Your task to perform on an android device: toggle data saver in the chrome app Image 0: 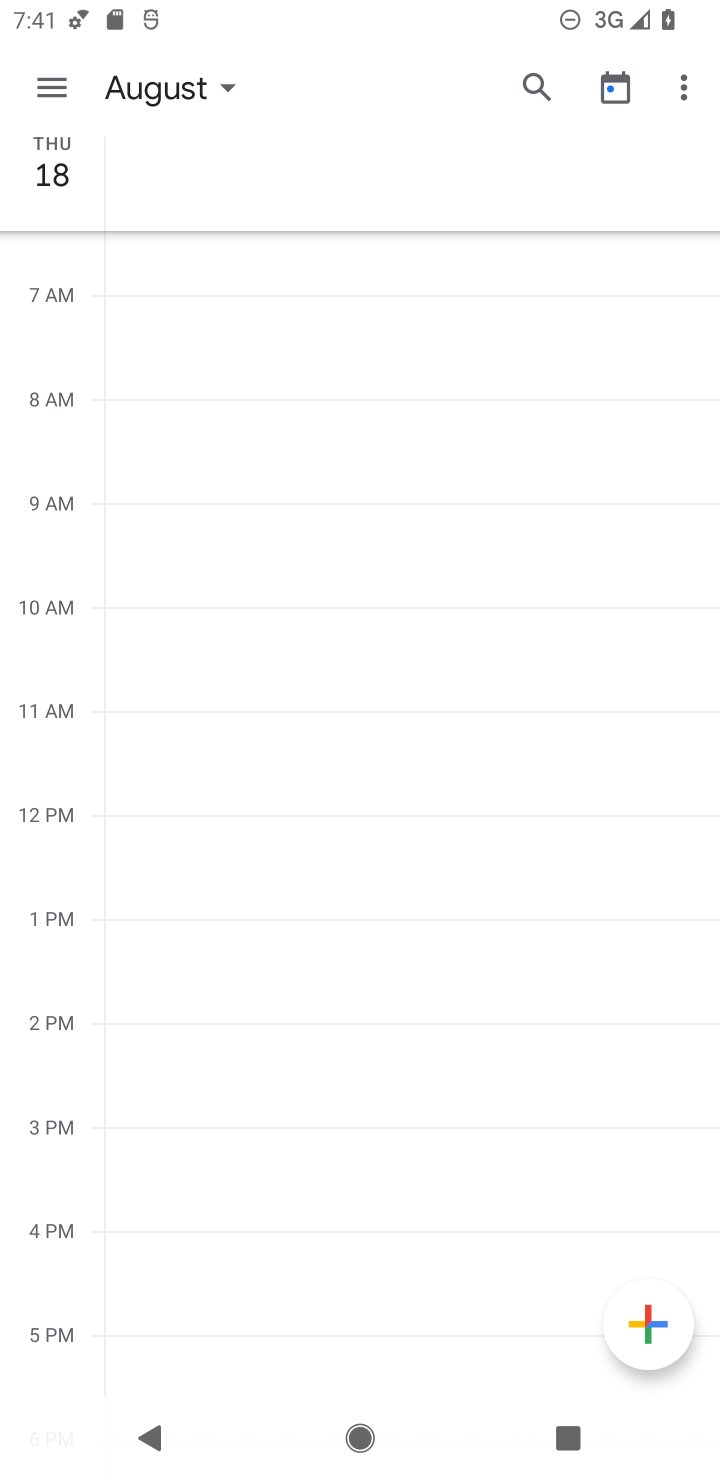
Step 0: press home button
Your task to perform on an android device: toggle data saver in the chrome app Image 1: 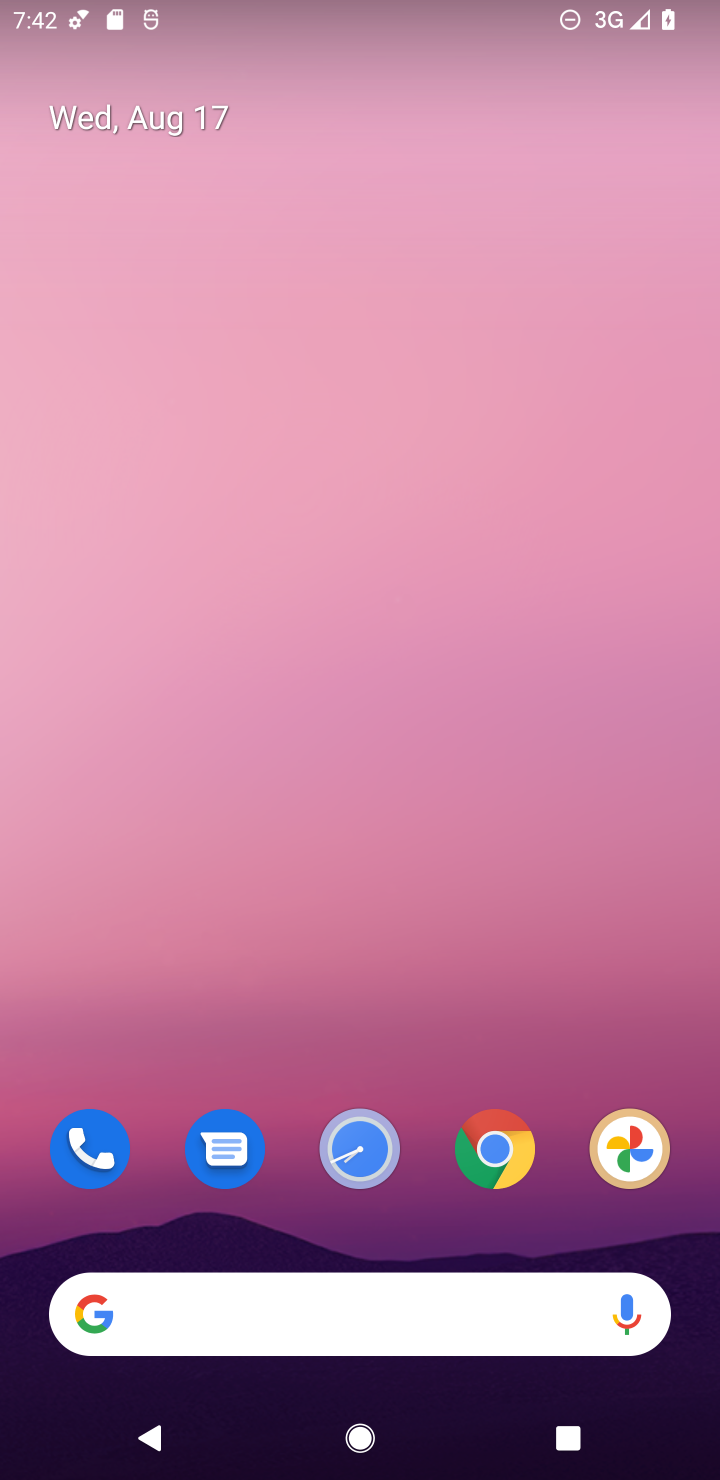
Step 1: click (497, 1137)
Your task to perform on an android device: toggle data saver in the chrome app Image 2: 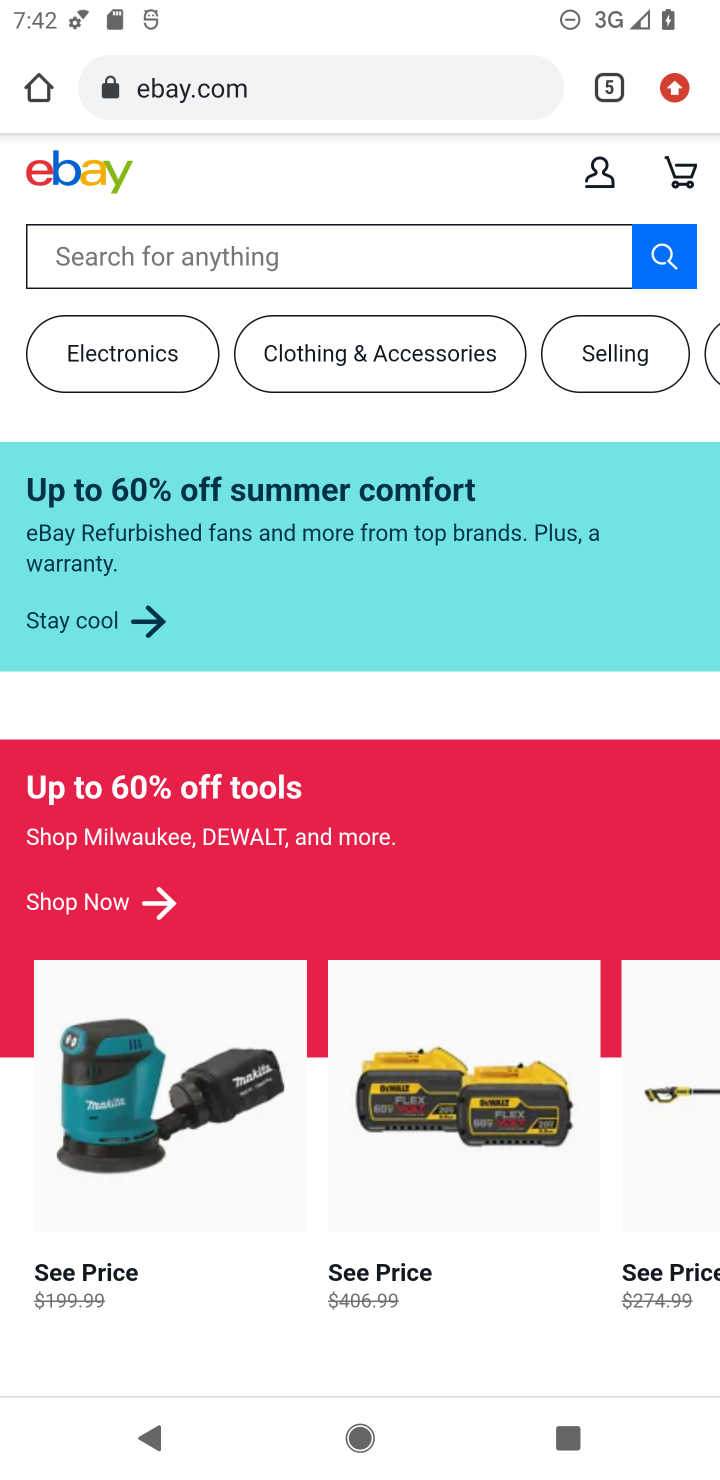
Step 2: click (662, 81)
Your task to perform on an android device: toggle data saver in the chrome app Image 3: 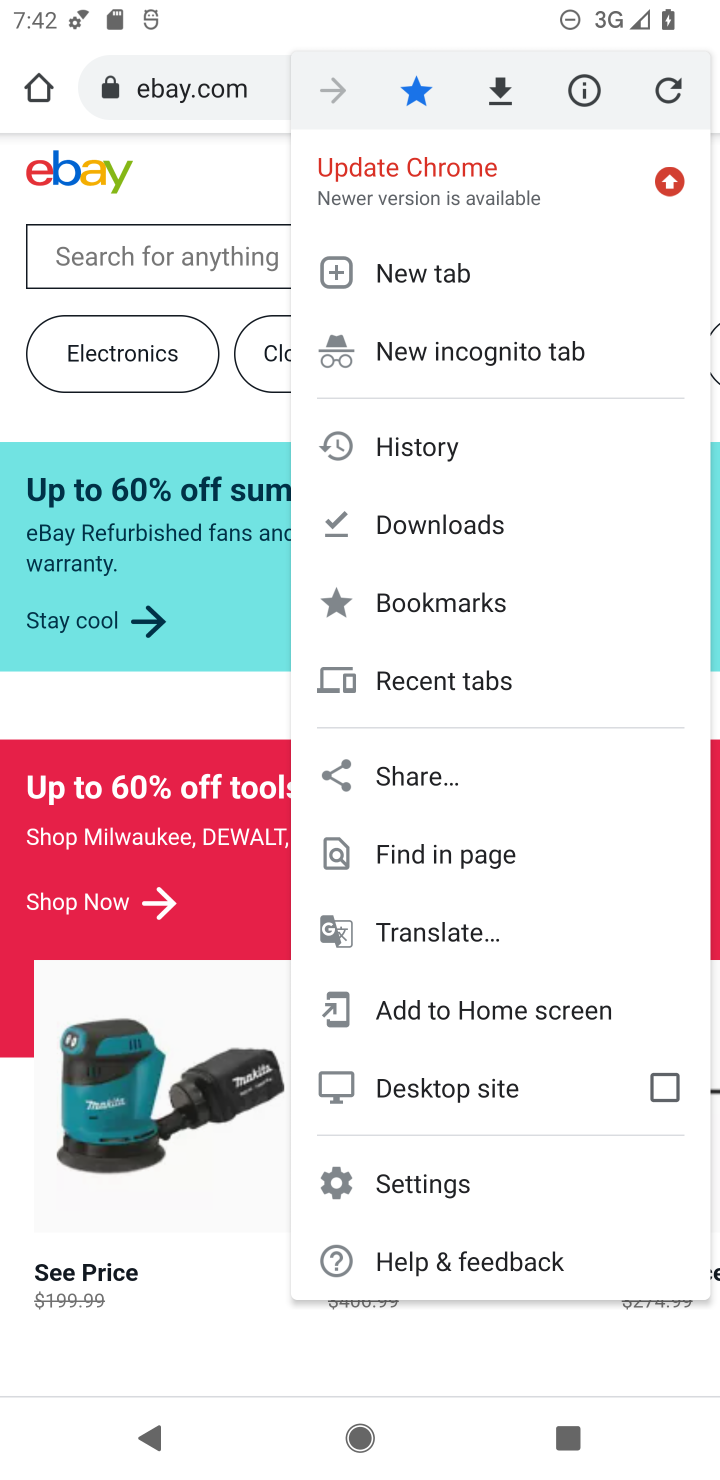
Step 3: click (423, 1170)
Your task to perform on an android device: toggle data saver in the chrome app Image 4: 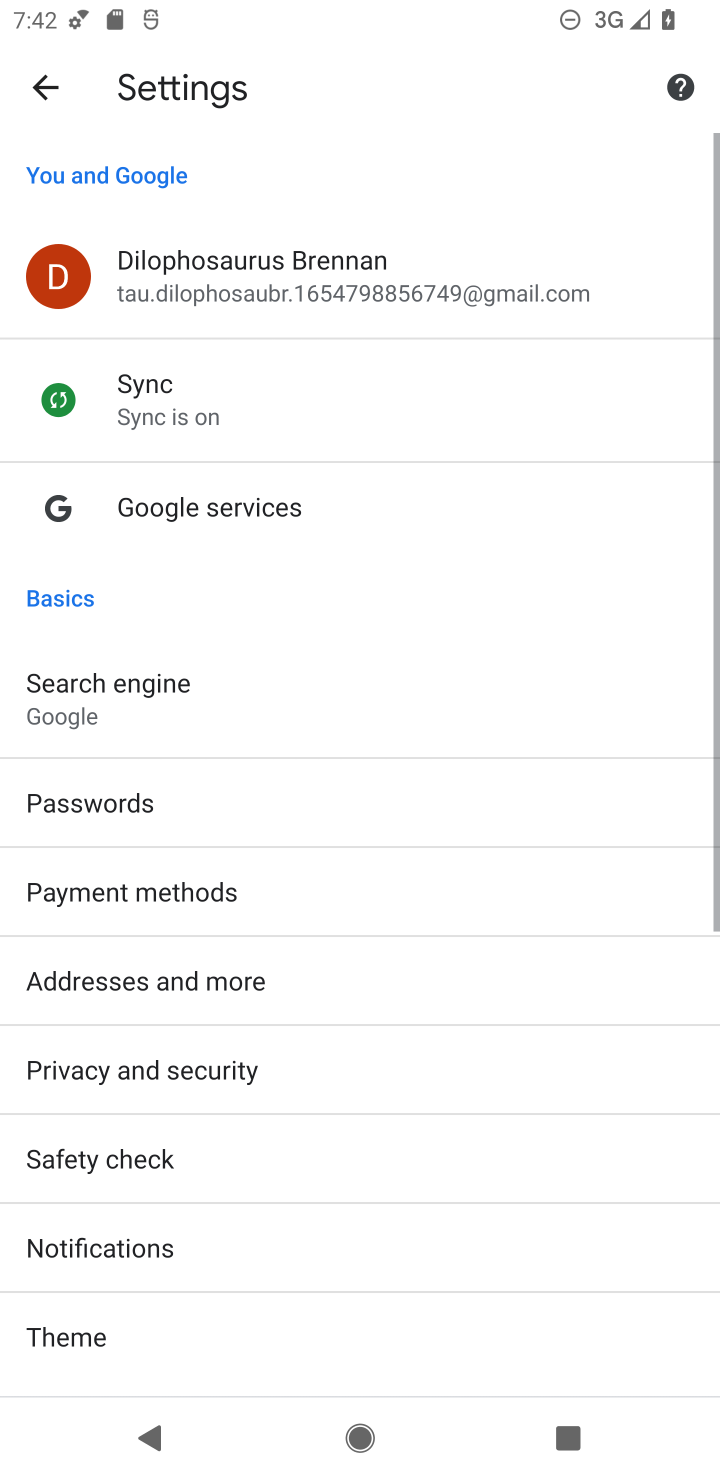
Step 4: drag from (413, 1191) to (310, 325)
Your task to perform on an android device: toggle data saver in the chrome app Image 5: 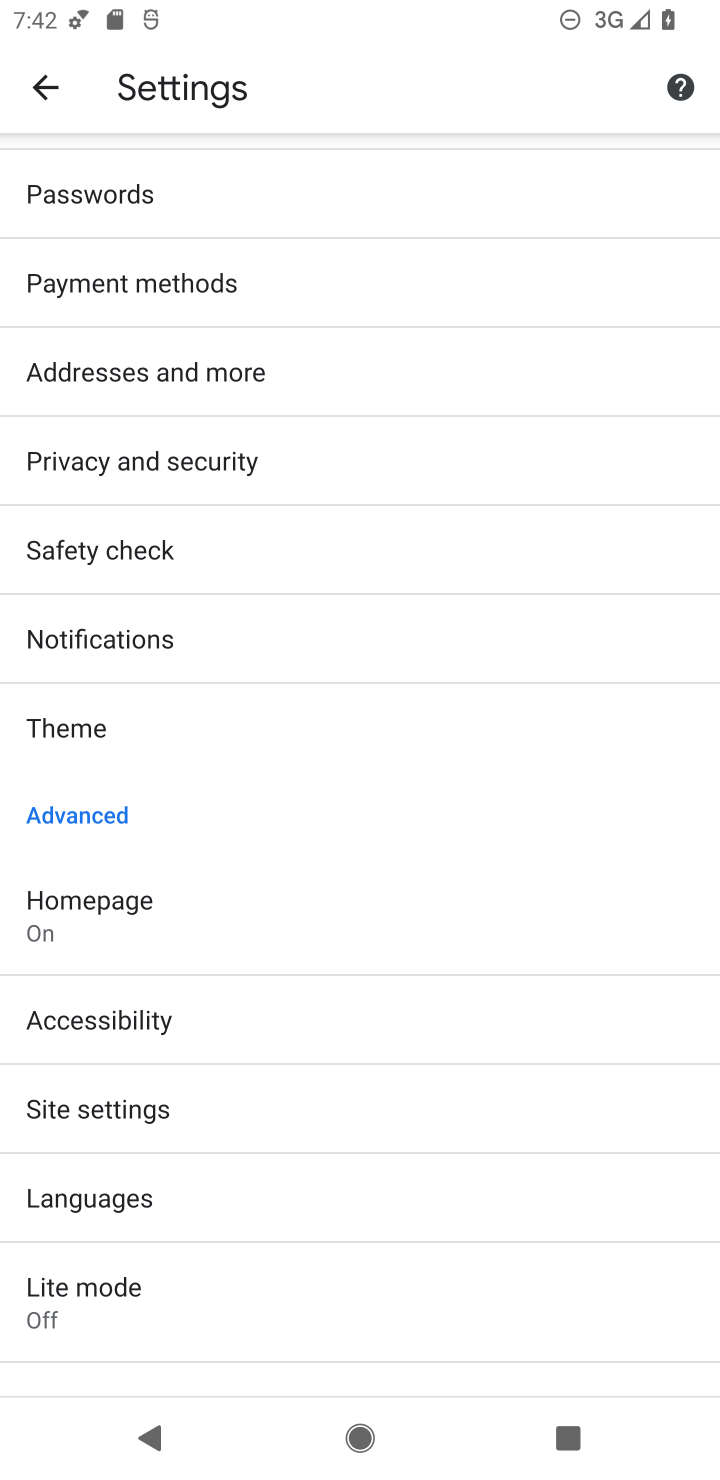
Step 5: click (89, 1280)
Your task to perform on an android device: toggle data saver in the chrome app Image 6: 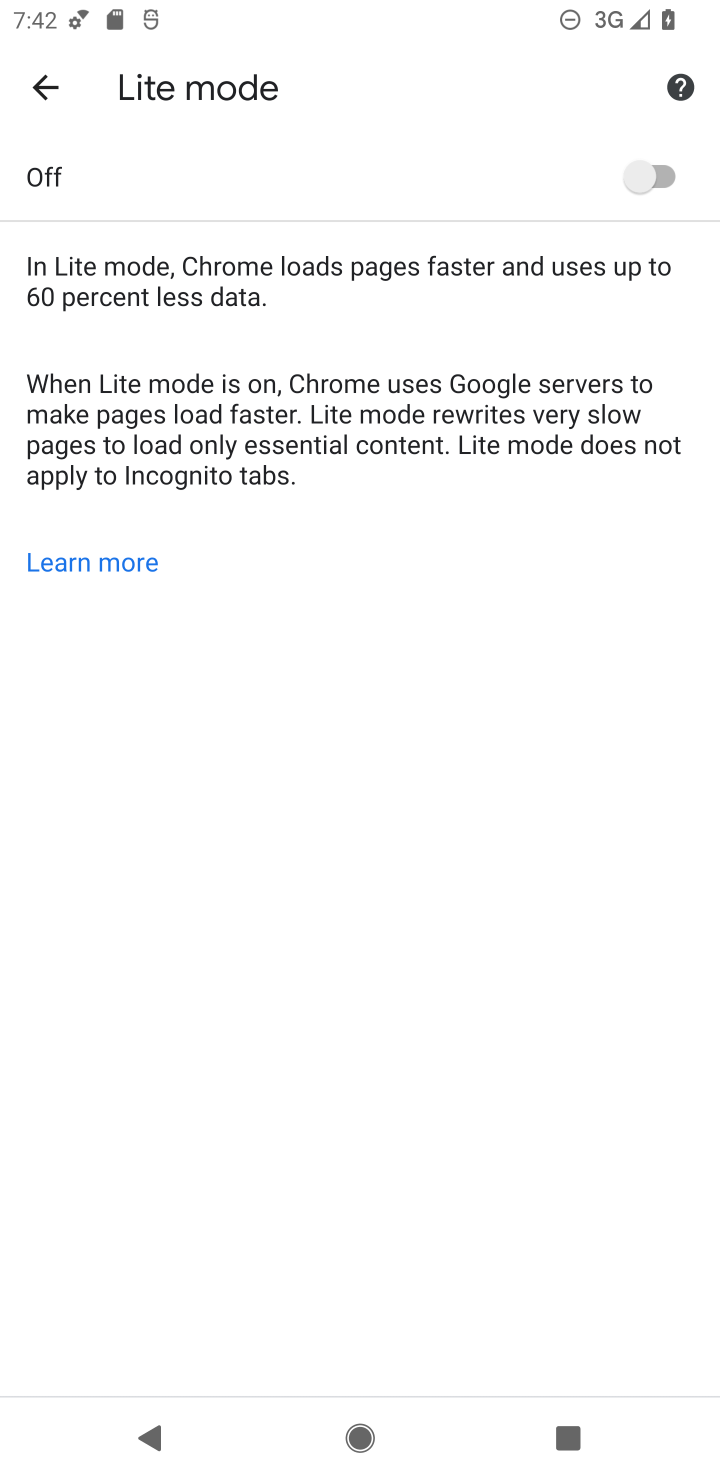
Step 6: click (630, 171)
Your task to perform on an android device: toggle data saver in the chrome app Image 7: 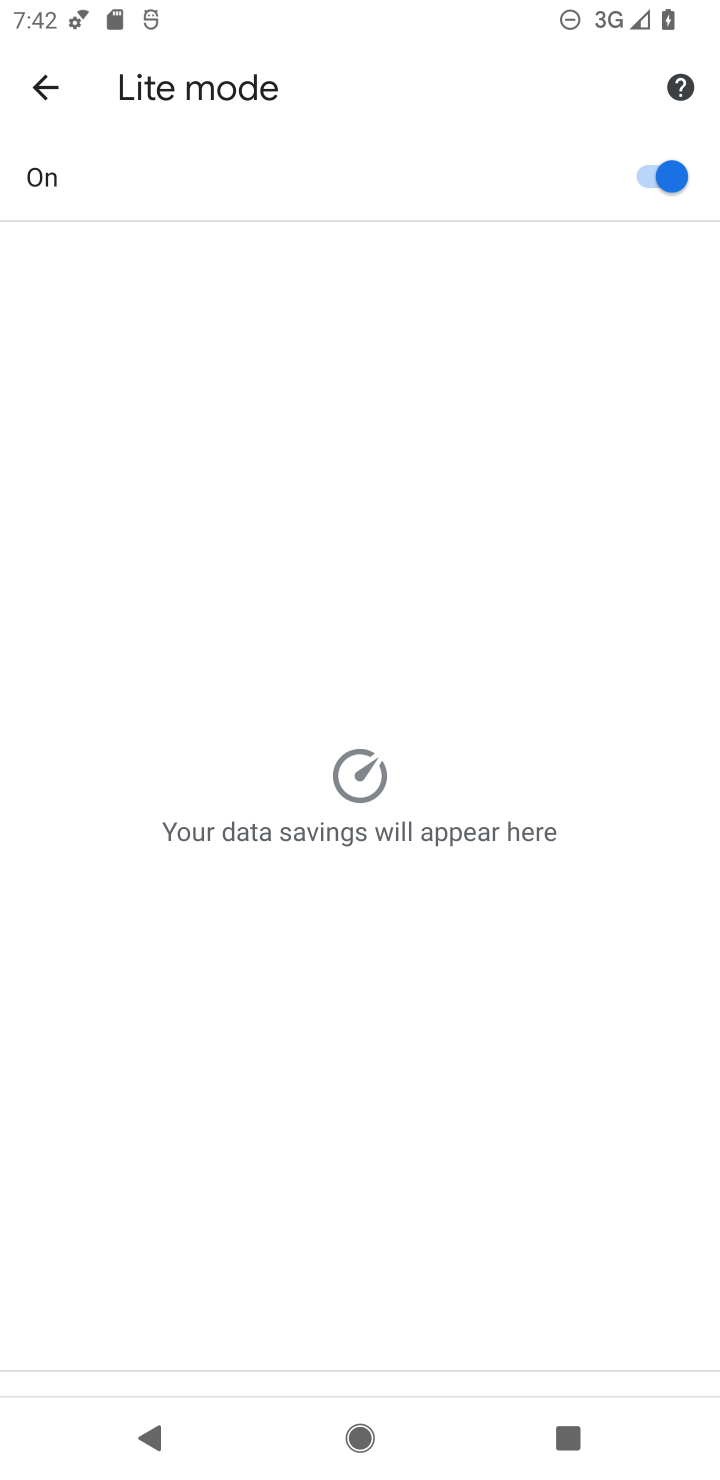
Step 7: task complete